Your task to perform on an android device: Open Chrome and go to the settings page Image 0: 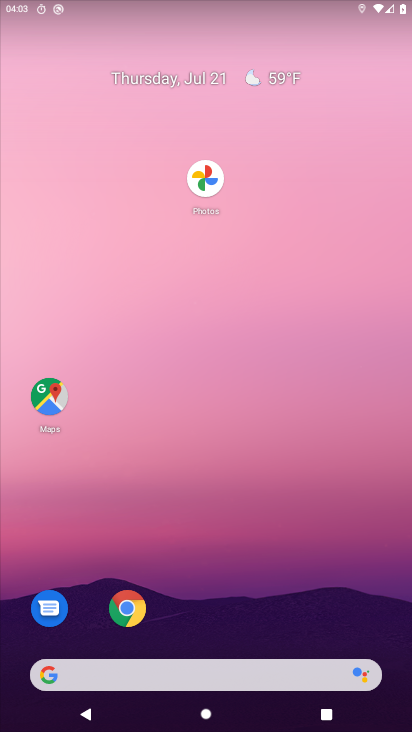
Step 0: press home button
Your task to perform on an android device: Open Chrome and go to the settings page Image 1: 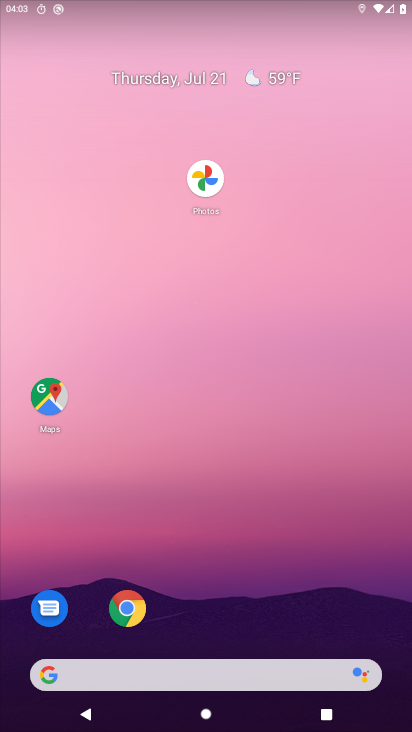
Step 1: drag from (203, 642) to (200, 75)
Your task to perform on an android device: Open Chrome and go to the settings page Image 2: 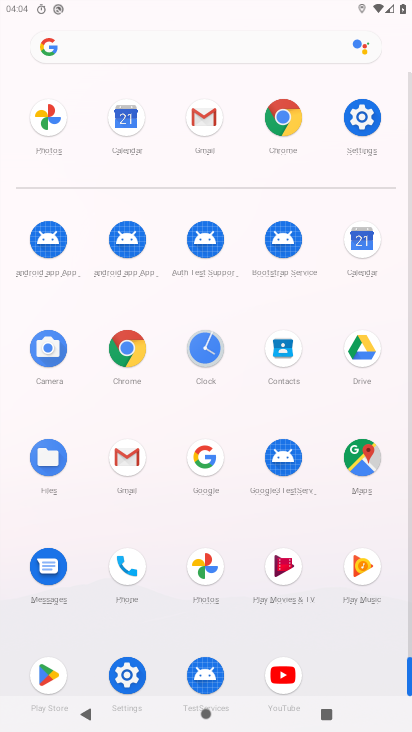
Step 2: click (364, 108)
Your task to perform on an android device: Open Chrome and go to the settings page Image 3: 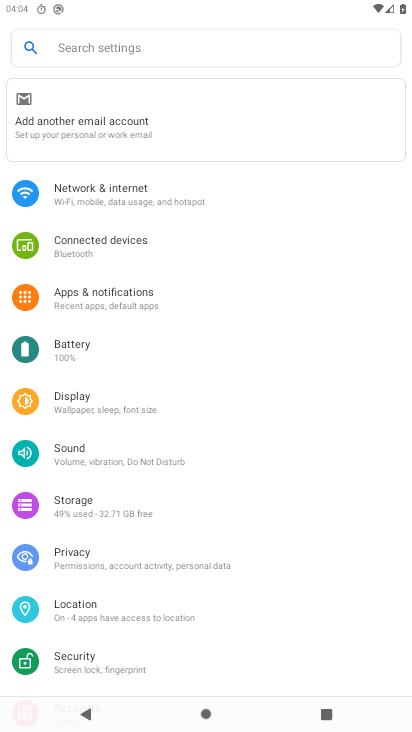
Step 3: press home button
Your task to perform on an android device: Open Chrome and go to the settings page Image 4: 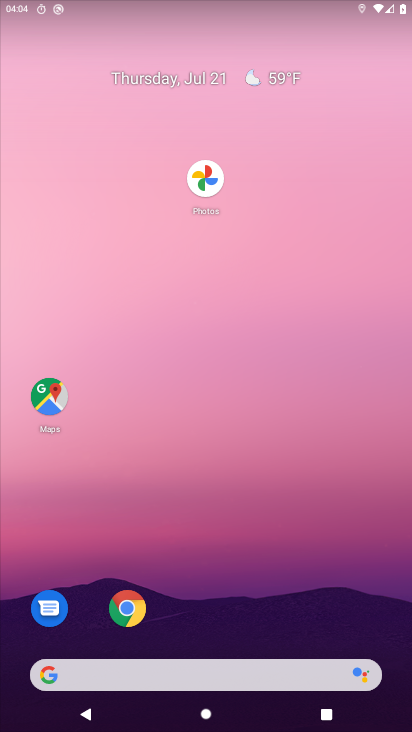
Step 4: drag from (209, 634) to (231, 79)
Your task to perform on an android device: Open Chrome and go to the settings page Image 5: 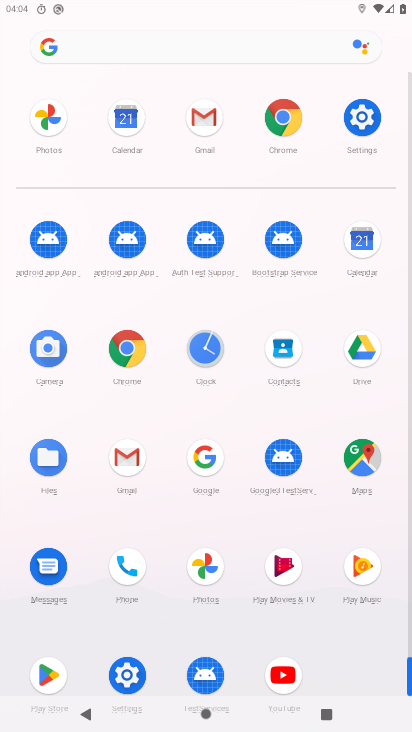
Step 5: click (357, 110)
Your task to perform on an android device: Open Chrome and go to the settings page Image 6: 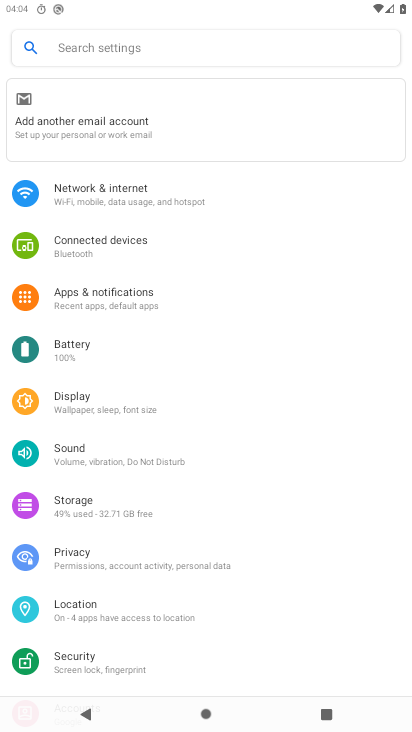
Step 6: press home button
Your task to perform on an android device: Open Chrome and go to the settings page Image 7: 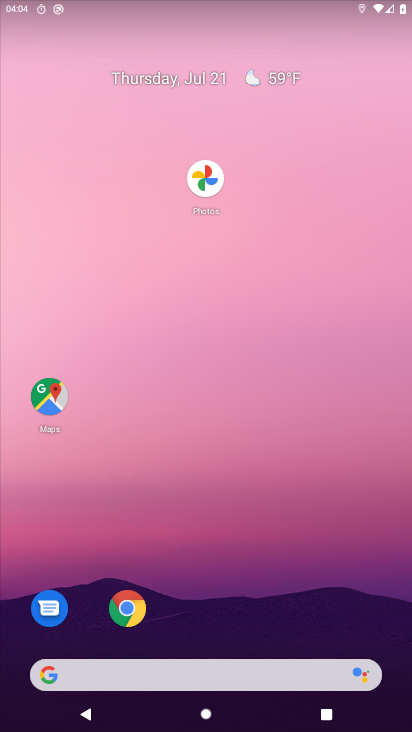
Step 7: click (120, 605)
Your task to perform on an android device: Open Chrome and go to the settings page Image 8: 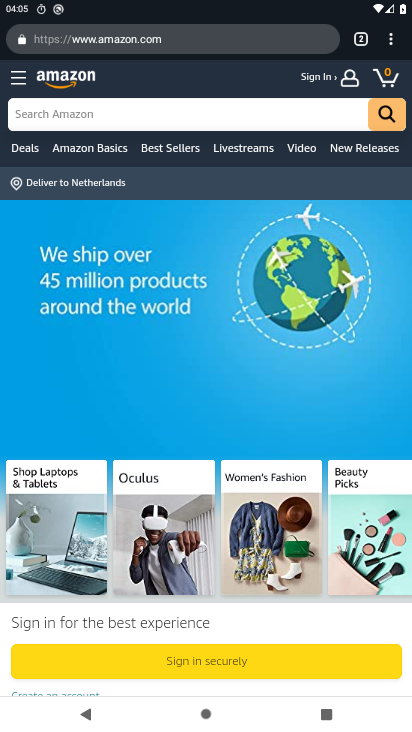
Step 8: click (389, 37)
Your task to perform on an android device: Open Chrome and go to the settings page Image 9: 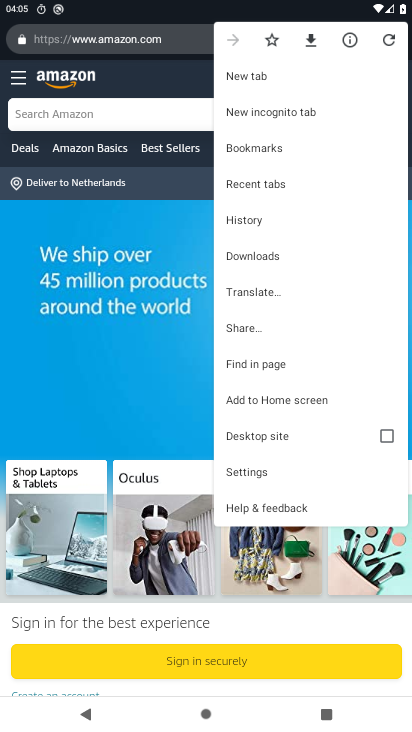
Step 9: click (246, 477)
Your task to perform on an android device: Open Chrome and go to the settings page Image 10: 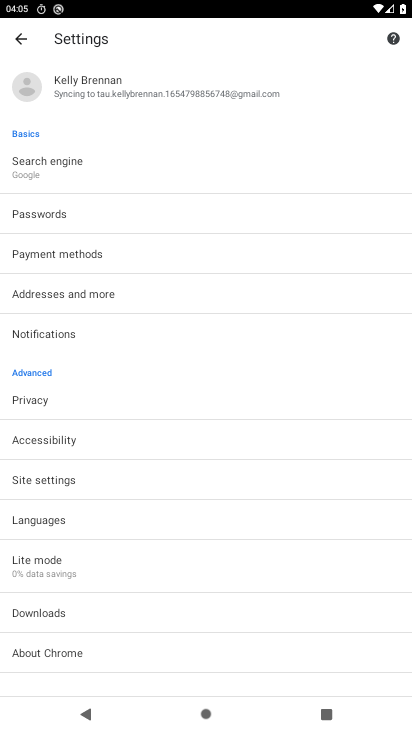
Step 10: task complete